Your task to perform on an android device: check the backup settings in the google photos Image 0: 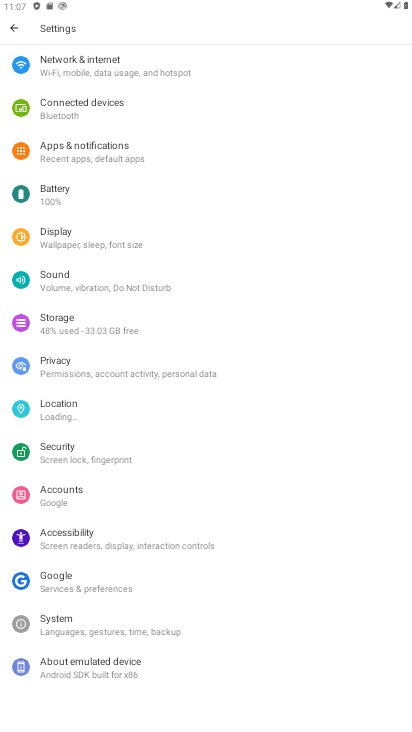
Step 0: press home button
Your task to perform on an android device: check the backup settings in the google photos Image 1: 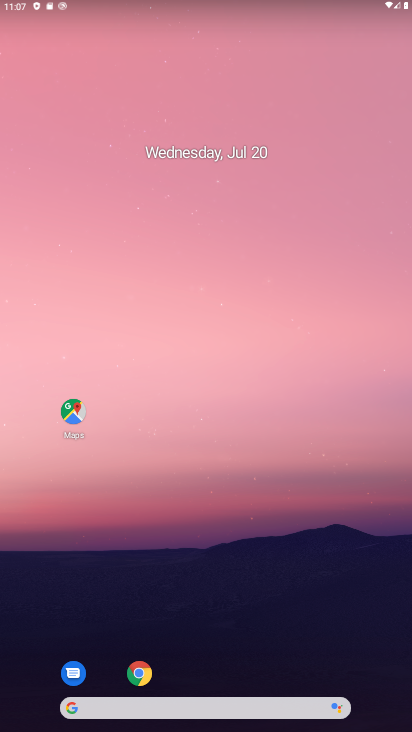
Step 1: drag from (345, 708) to (333, 189)
Your task to perform on an android device: check the backup settings in the google photos Image 2: 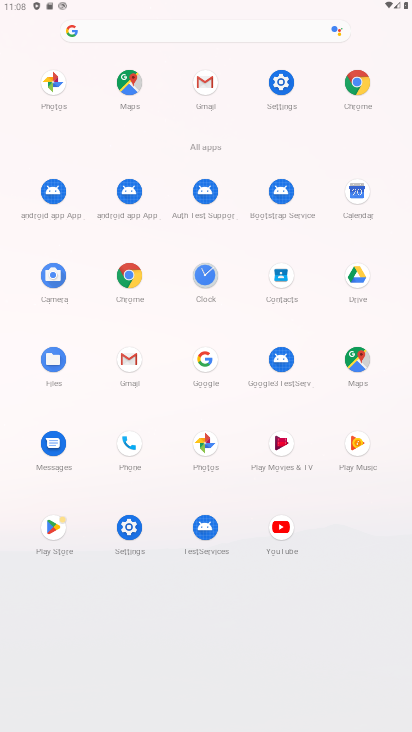
Step 2: click (211, 447)
Your task to perform on an android device: check the backup settings in the google photos Image 3: 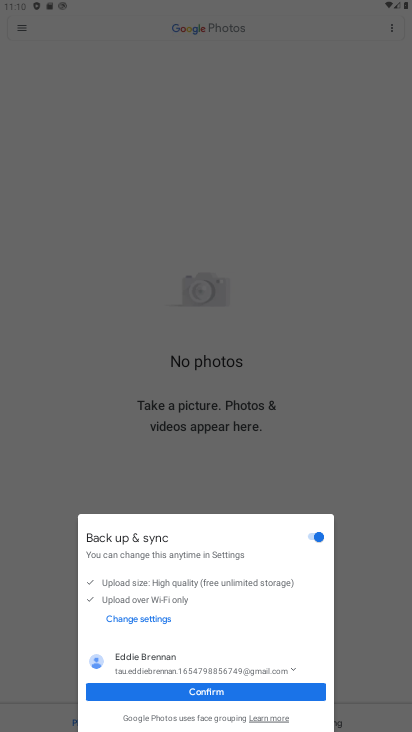
Step 3: click (282, 689)
Your task to perform on an android device: check the backup settings in the google photos Image 4: 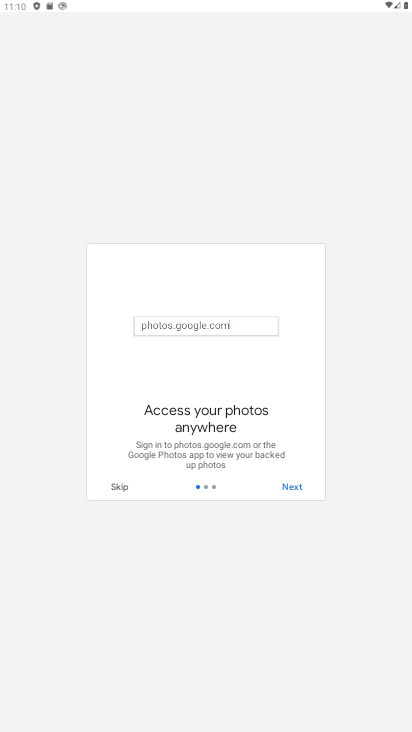
Step 4: click (280, 485)
Your task to perform on an android device: check the backup settings in the google photos Image 5: 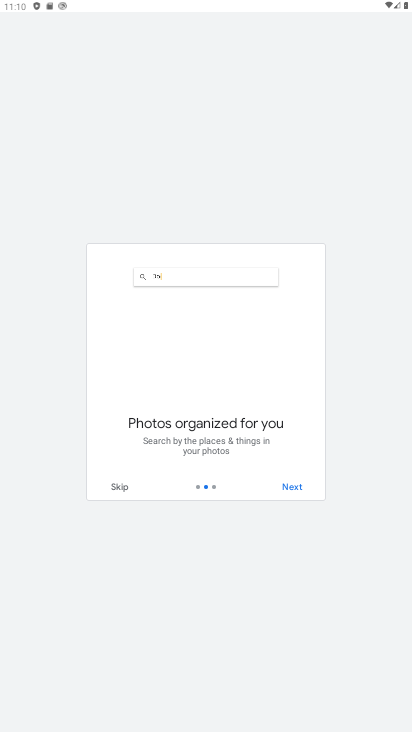
Step 5: click (280, 485)
Your task to perform on an android device: check the backup settings in the google photos Image 6: 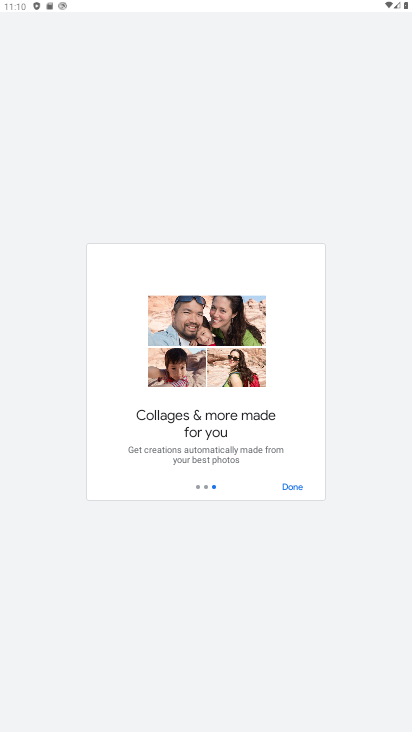
Step 6: click (280, 485)
Your task to perform on an android device: check the backup settings in the google photos Image 7: 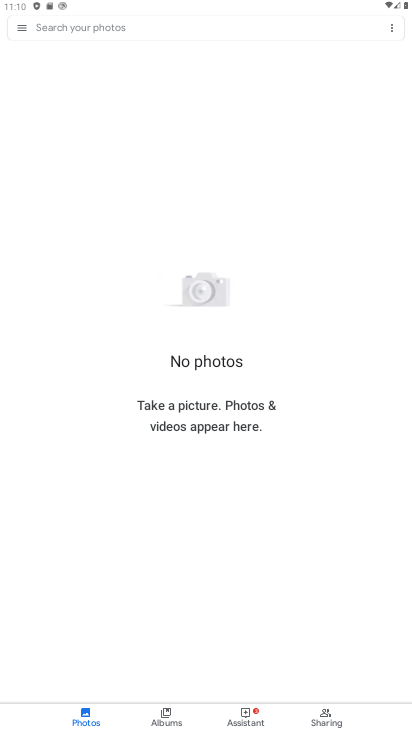
Step 7: click (21, 23)
Your task to perform on an android device: check the backup settings in the google photos Image 8: 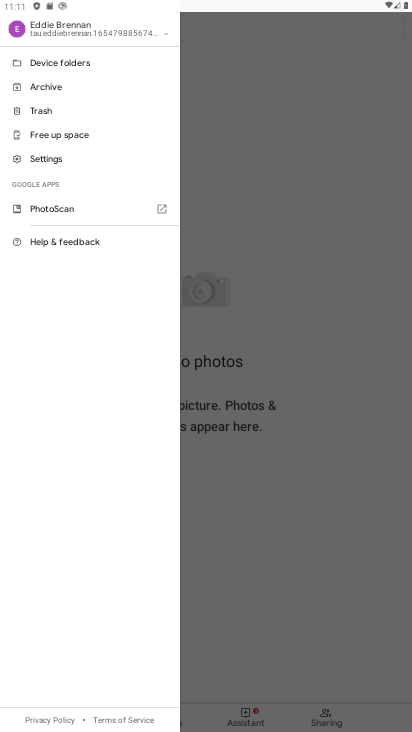
Step 8: click (29, 161)
Your task to perform on an android device: check the backup settings in the google photos Image 9: 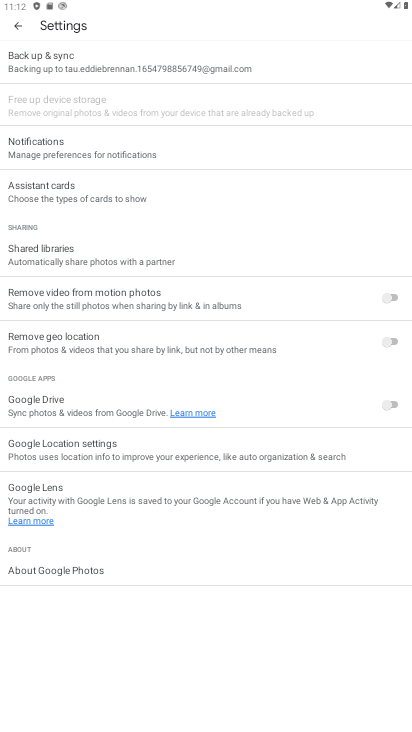
Step 9: click (43, 63)
Your task to perform on an android device: check the backup settings in the google photos Image 10: 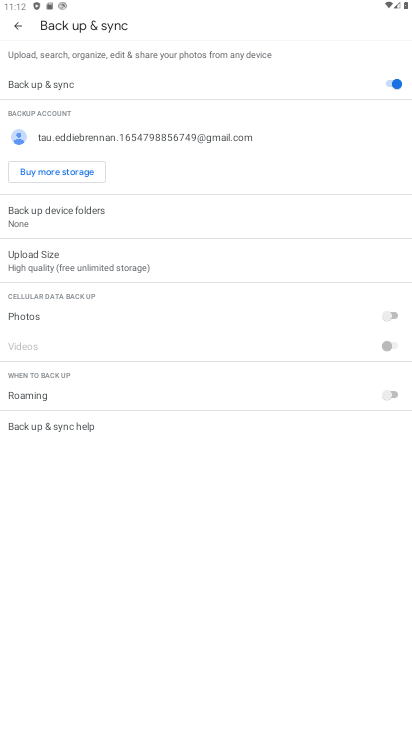
Step 10: task complete